Your task to perform on an android device: Open Youtube and go to "Your channel" Image 0: 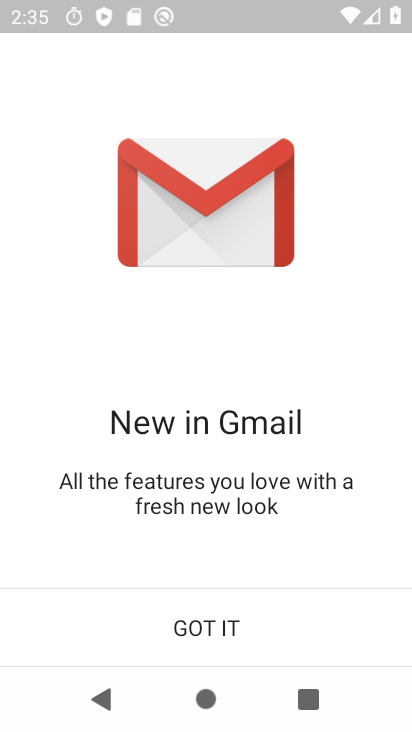
Step 0: drag from (243, 534) to (236, 434)
Your task to perform on an android device: Open Youtube and go to "Your channel" Image 1: 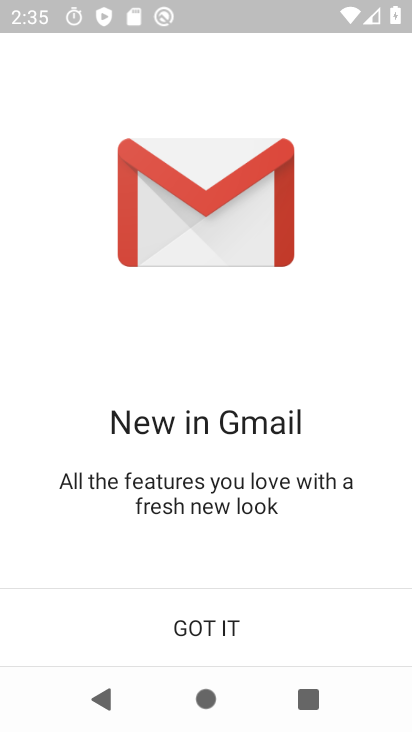
Step 1: press home button
Your task to perform on an android device: Open Youtube and go to "Your channel" Image 2: 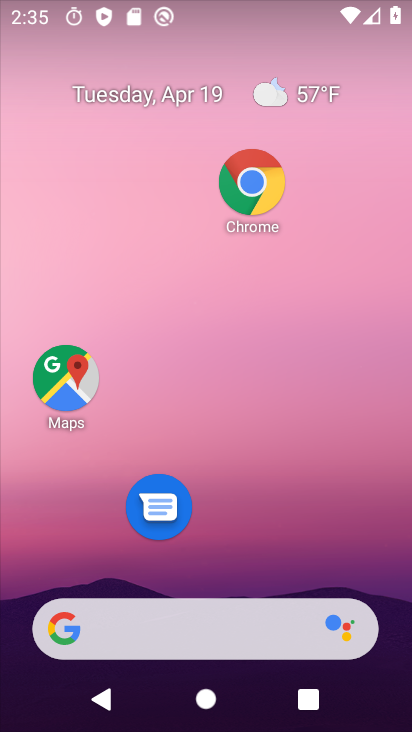
Step 2: drag from (294, 605) to (309, 351)
Your task to perform on an android device: Open Youtube and go to "Your channel" Image 3: 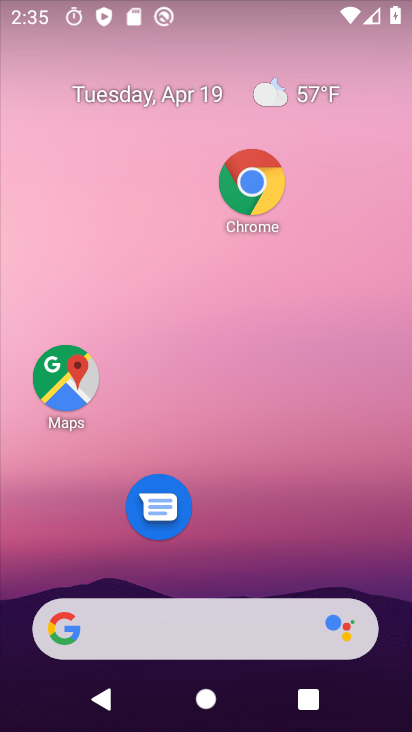
Step 3: drag from (276, 556) to (277, 168)
Your task to perform on an android device: Open Youtube and go to "Your channel" Image 4: 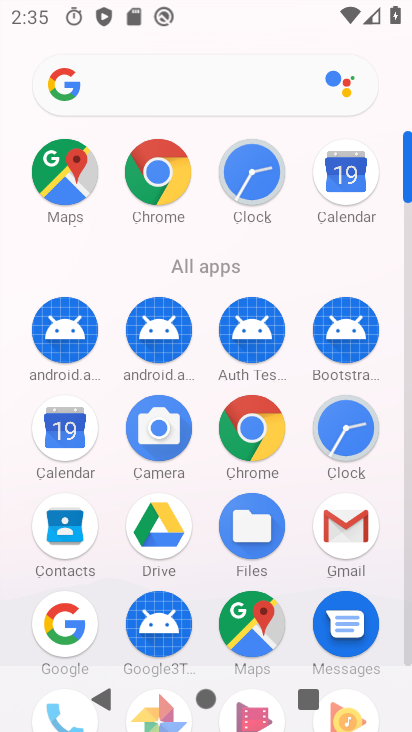
Step 4: drag from (281, 421) to (284, 152)
Your task to perform on an android device: Open Youtube and go to "Your channel" Image 5: 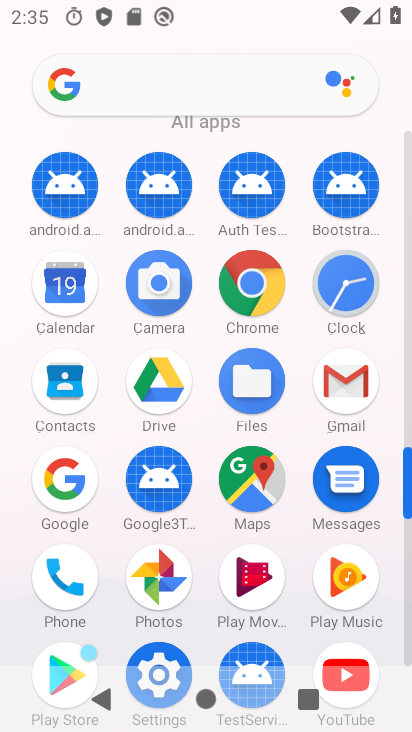
Step 5: click (348, 652)
Your task to perform on an android device: Open Youtube and go to "Your channel" Image 6: 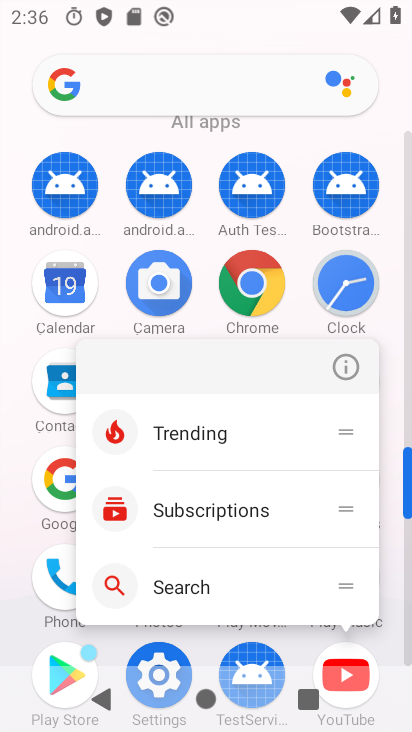
Step 6: click (359, 655)
Your task to perform on an android device: Open Youtube and go to "Your channel" Image 7: 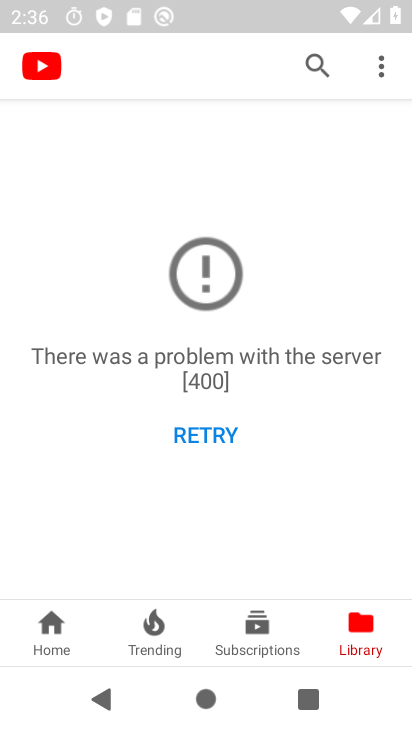
Step 7: click (363, 652)
Your task to perform on an android device: Open Youtube and go to "Your channel" Image 8: 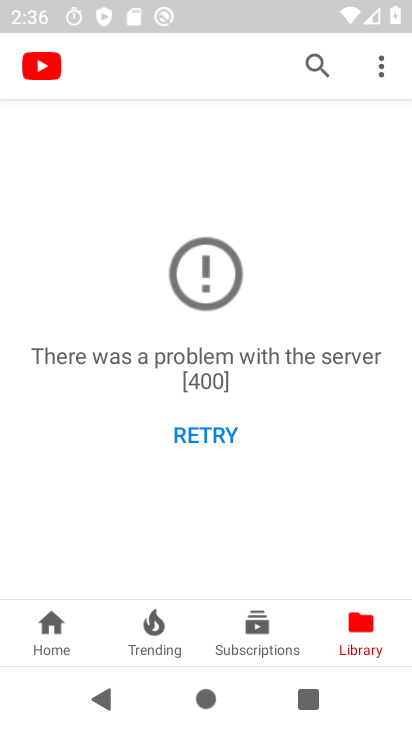
Step 8: task complete